Your task to perform on an android device: Add "bose soundsport free" to the cart on target, then select checkout. Image 0: 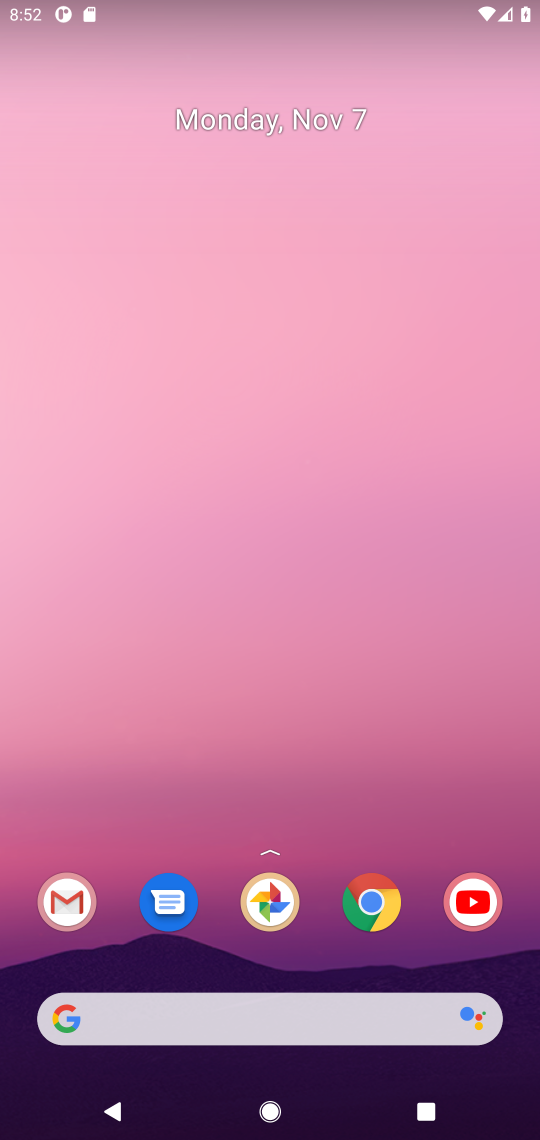
Step 0: click (372, 906)
Your task to perform on an android device: Add "bose soundsport free" to the cart on target, then select checkout. Image 1: 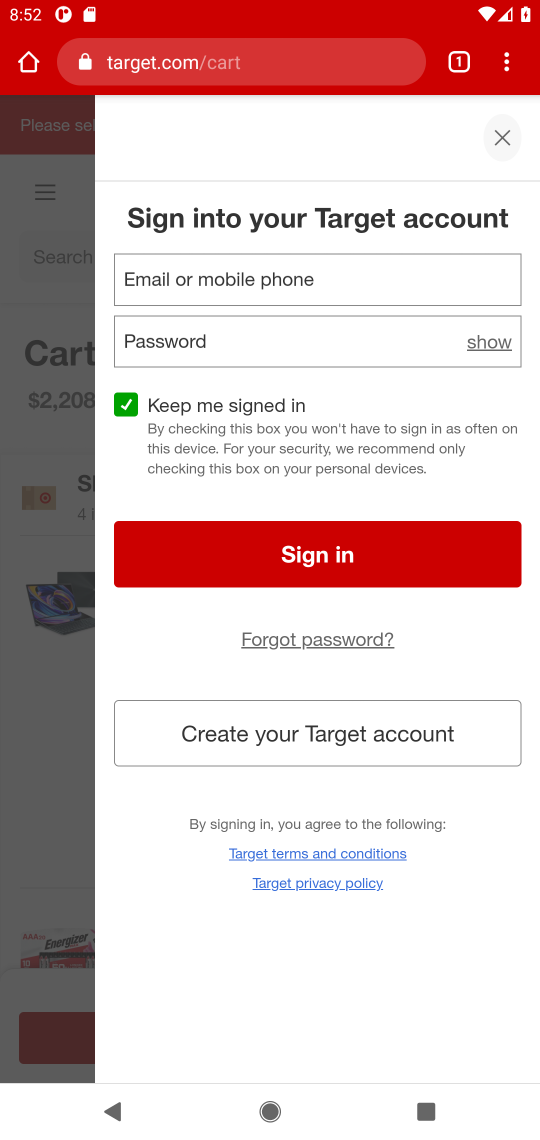
Step 1: click (501, 139)
Your task to perform on an android device: Add "bose soundsport free" to the cart on target, then select checkout. Image 2: 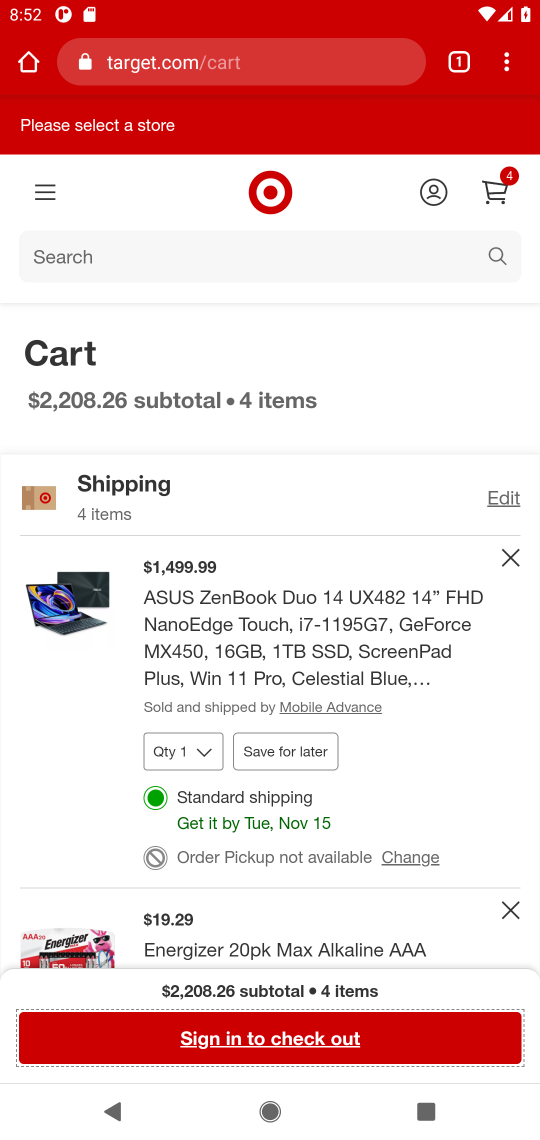
Step 2: click (492, 256)
Your task to perform on an android device: Add "bose soundsport free" to the cart on target, then select checkout. Image 3: 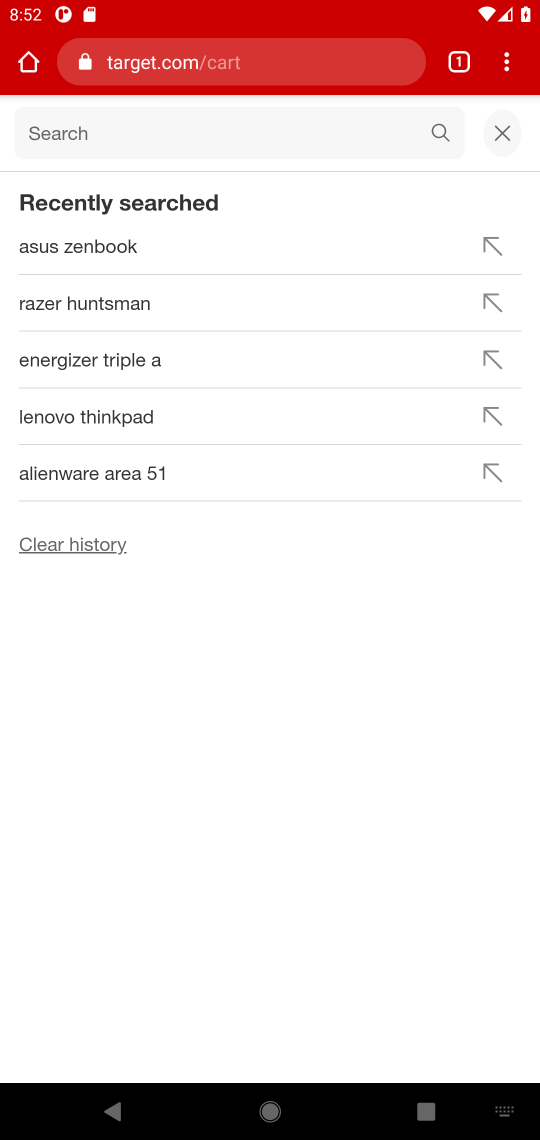
Step 3: type "bose soundsport free"
Your task to perform on an android device: Add "bose soundsport free" to the cart on target, then select checkout. Image 4: 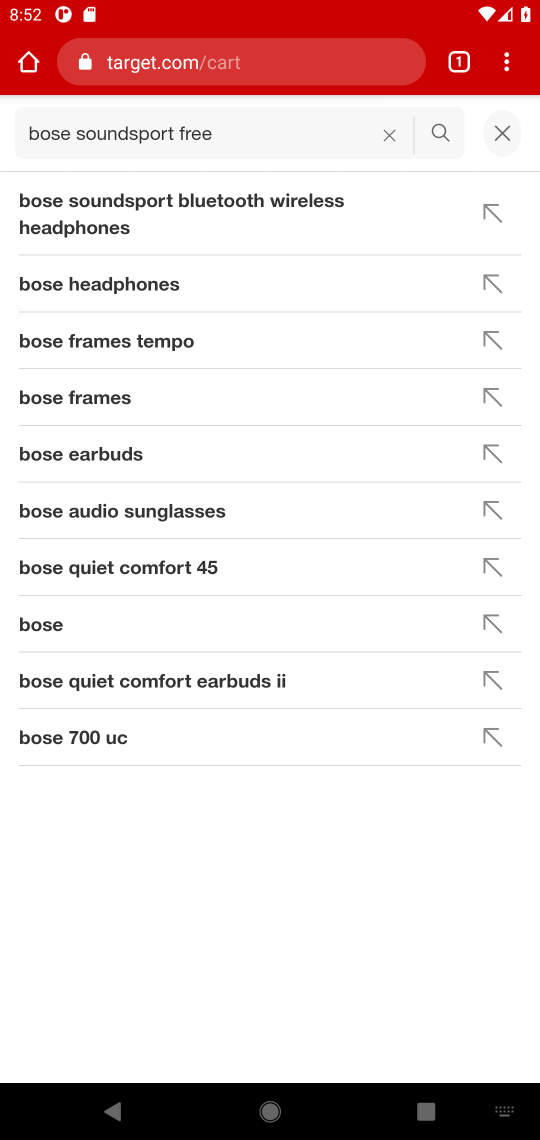
Step 4: click (443, 132)
Your task to perform on an android device: Add "bose soundsport free" to the cart on target, then select checkout. Image 5: 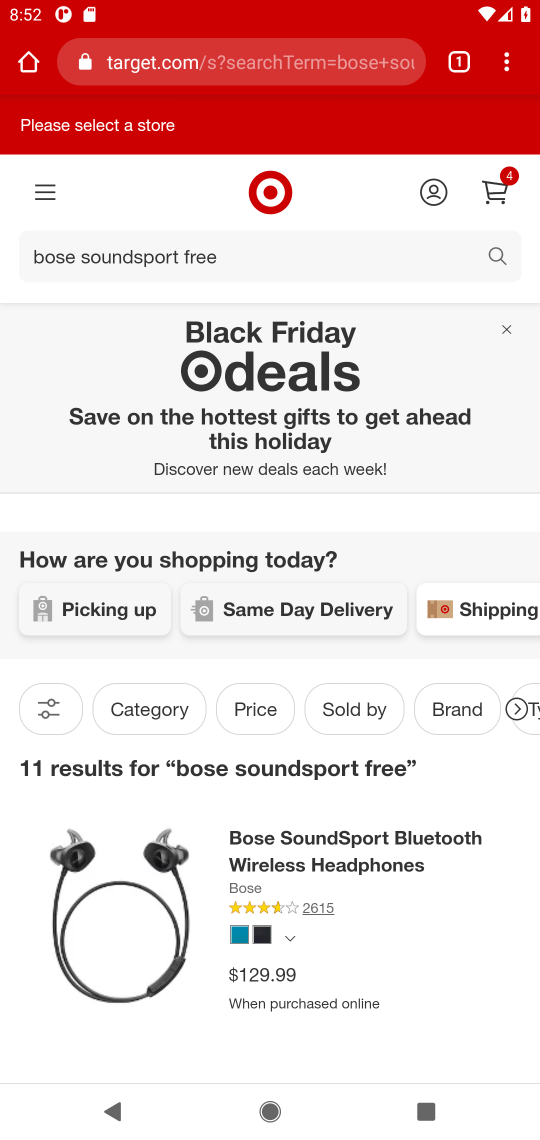
Step 5: task complete